Your task to perform on an android device: add a contact in the contacts app Image 0: 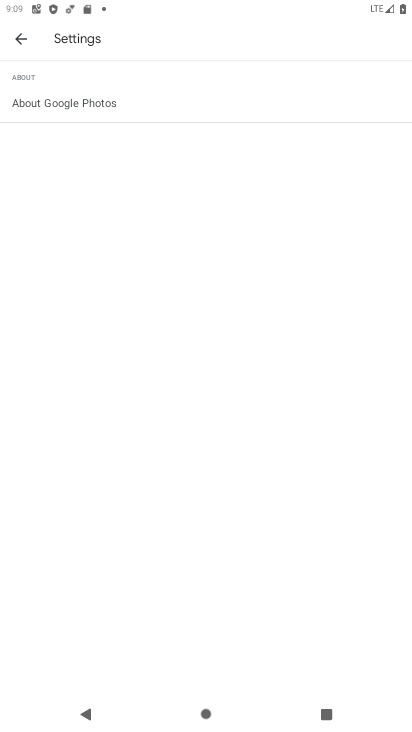
Step 0: press home button
Your task to perform on an android device: add a contact in the contacts app Image 1: 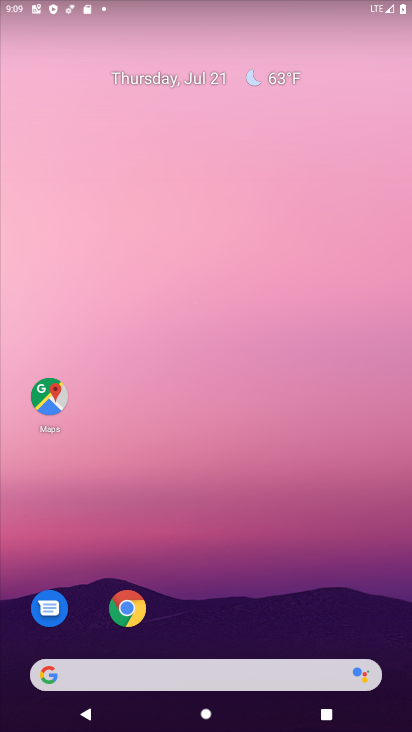
Step 1: click (254, 591)
Your task to perform on an android device: add a contact in the contacts app Image 2: 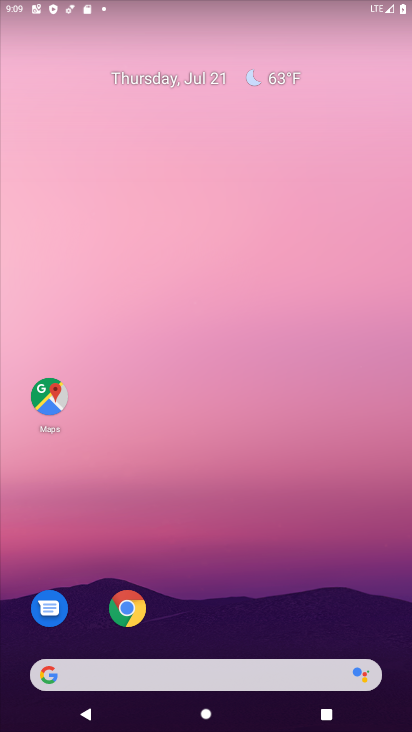
Step 2: click (254, 591)
Your task to perform on an android device: add a contact in the contacts app Image 3: 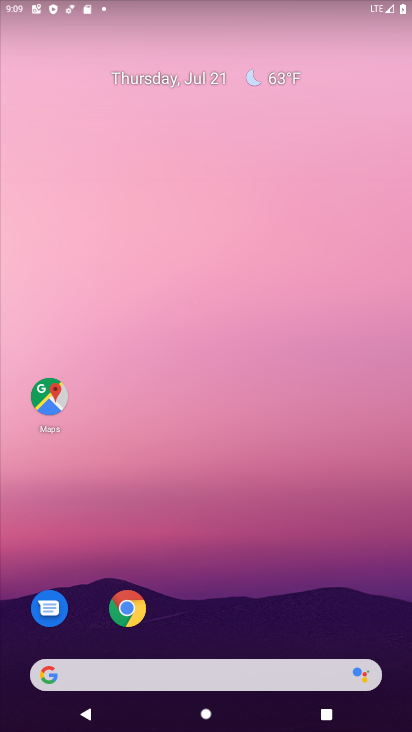
Step 3: drag from (268, 606) to (282, 311)
Your task to perform on an android device: add a contact in the contacts app Image 4: 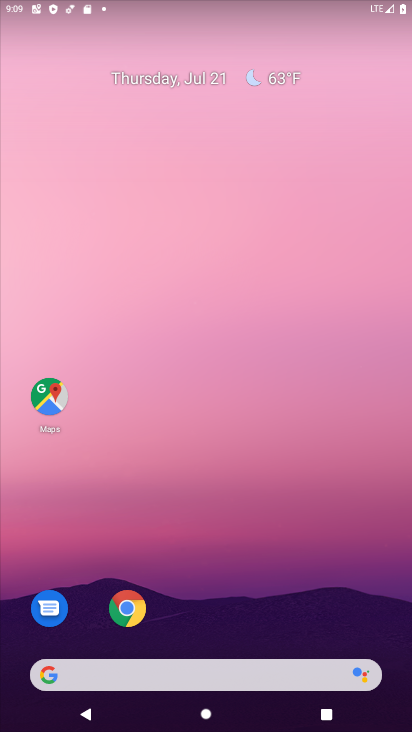
Step 4: drag from (256, 588) to (263, 22)
Your task to perform on an android device: add a contact in the contacts app Image 5: 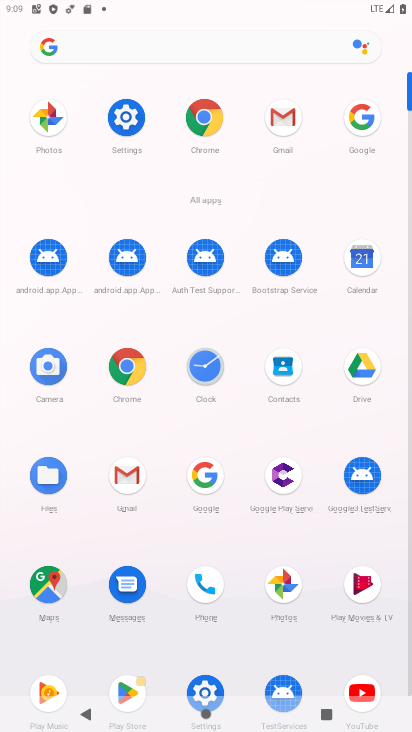
Step 5: click (284, 373)
Your task to perform on an android device: add a contact in the contacts app Image 6: 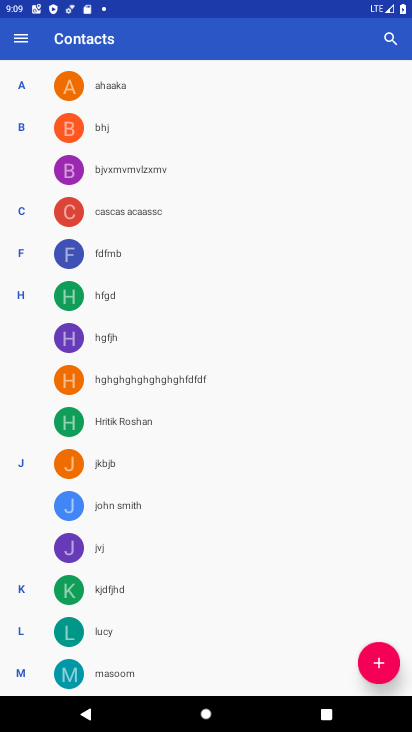
Step 6: click (375, 668)
Your task to perform on an android device: add a contact in the contacts app Image 7: 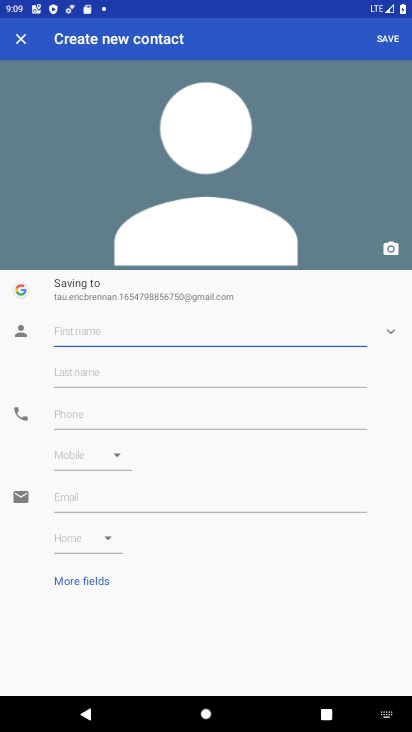
Step 7: type "tghthgxchjhxtfyb"
Your task to perform on an android device: add a contact in the contacts app Image 8: 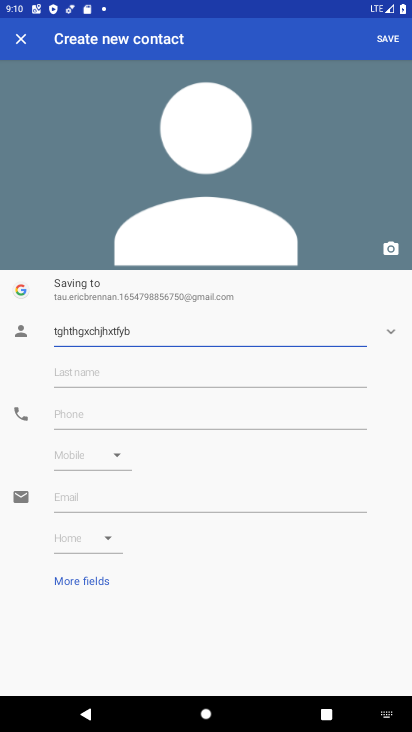
Step 8: click (202, 420)
Your task to perform on an android device: add a contact in the contacts app Image 9: 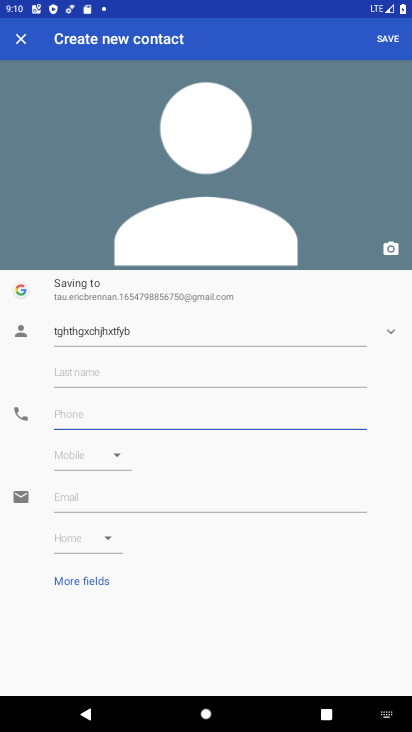
Step 9: type "987654568"
Your task to perform on an android device: add a contact in the contacts app Image 10: 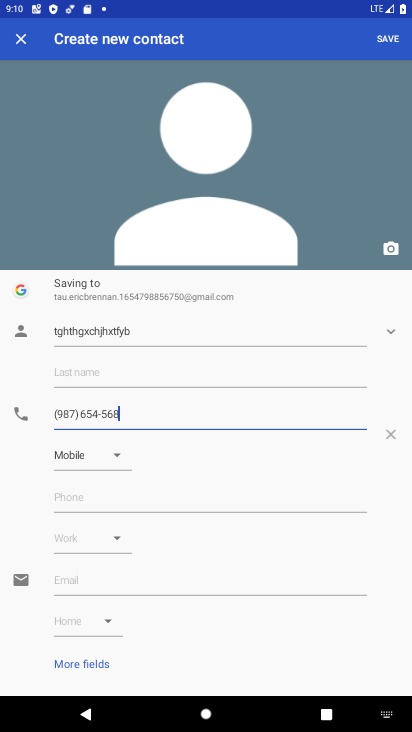
Step 10: type "8"
Your task to perform on an android device: add a contact in the contacts app Image 11: 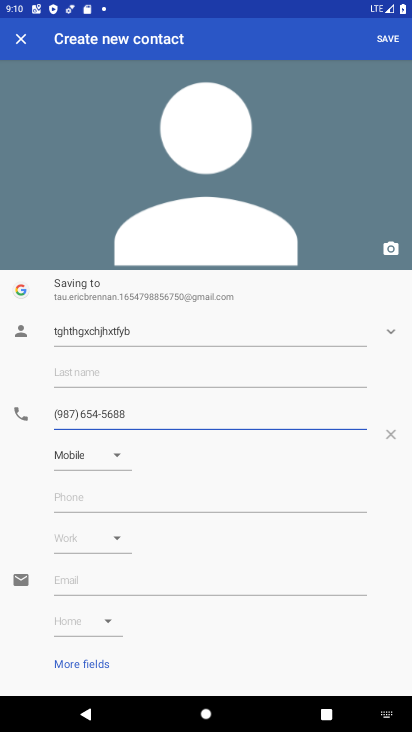
Step 11: click (379, 36)
Your task to perform on an android device: add a contact in the contacts app Image 12: 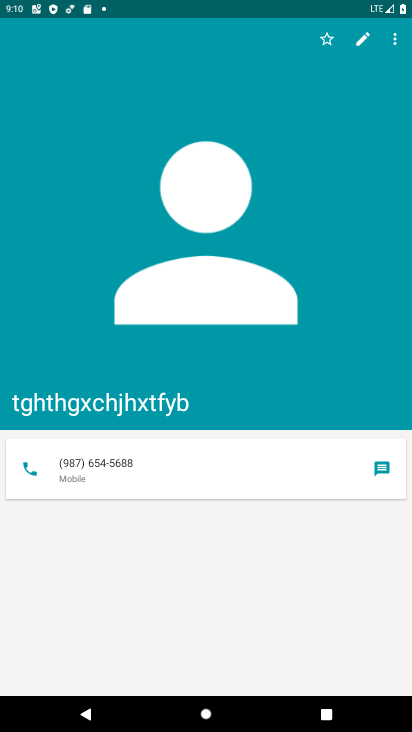
Step 12: task complete